Your task to perform on an android device: see sites visited before in the chrome app Image 0: 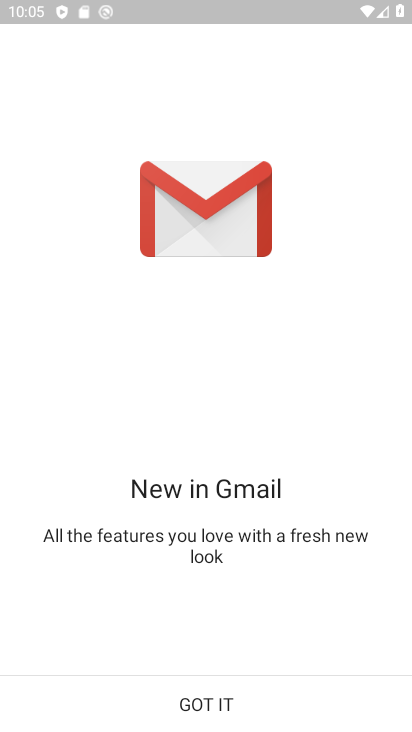
Step 0: click (234, 710)
Your task to perform on an android device: see sites visited before in the chrome app Image 1: 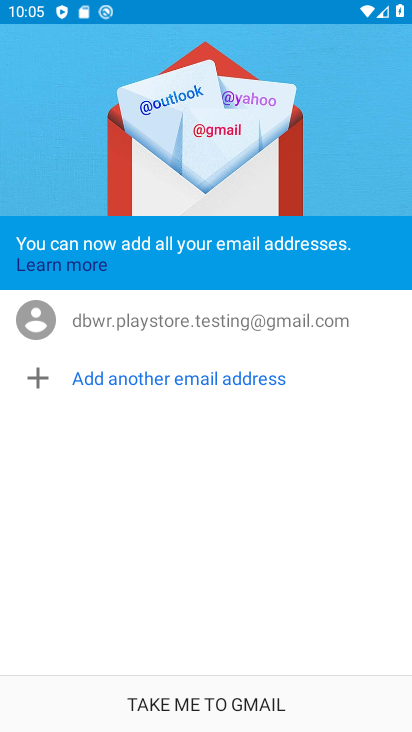
Step 1: click (234, 710)
Your task to perform on an android device: see sites visited before in the chrome app Image 2: 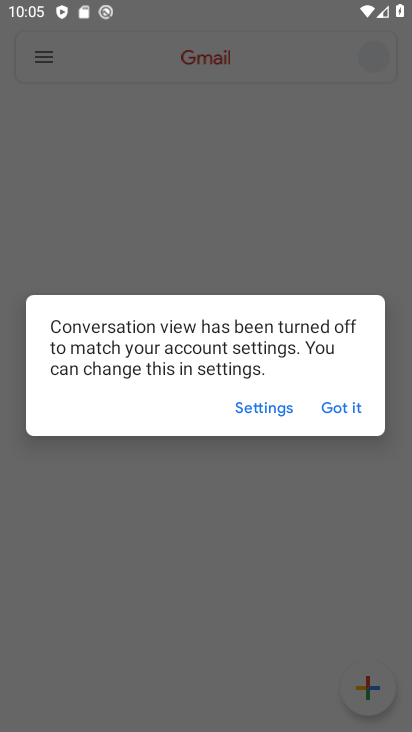
Step 2: click (331, 392)
Your task to perform on an android device: see sites visited before in the chrome app Image 3: 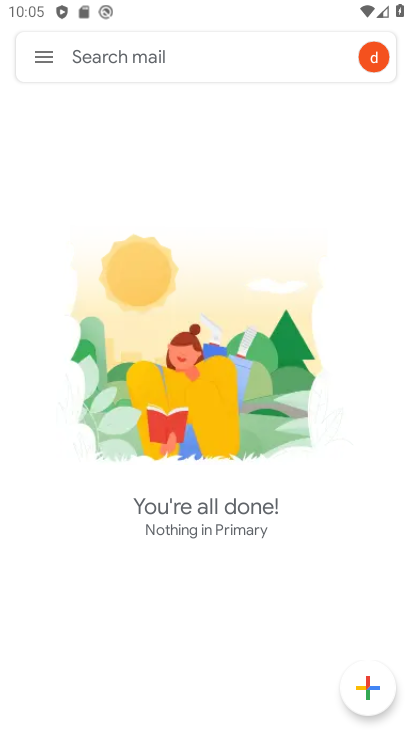
Step 3: task complete